Your task to perform on an android device: Go to sound settings Image 0: 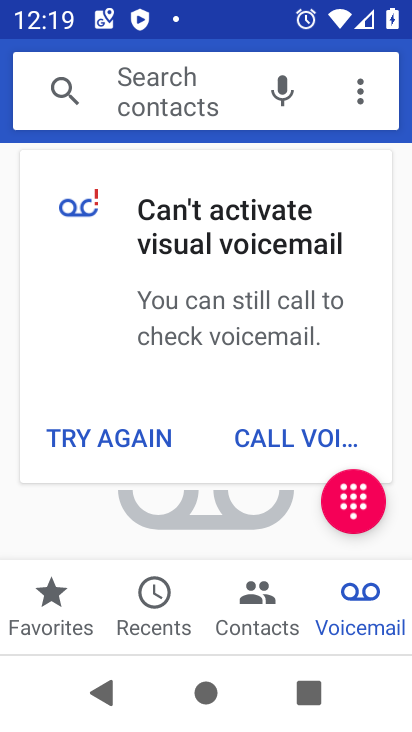
Step 0: press home button
Your task to perform on an android device: Go to sound settings Image 1: 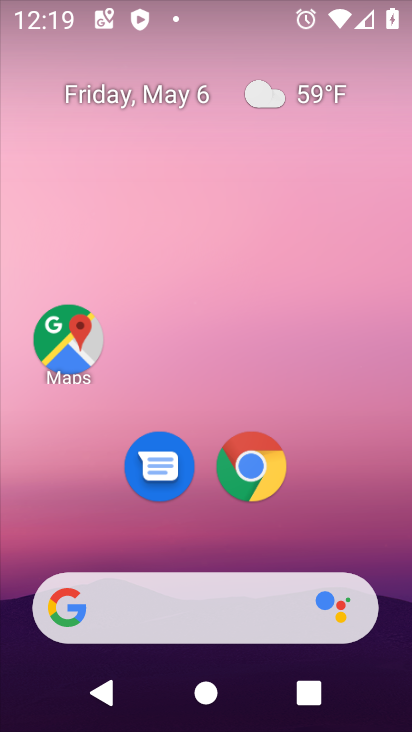
Step 1: click (226, 548)
Your task to perform on an android device: Go to sound settings Image 2: 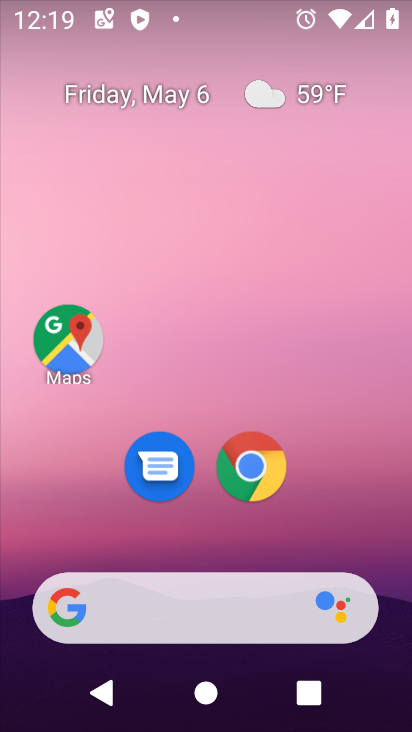
Step 2: drag from (226, 547) to (283, 246)
Your task to perform on an android device: Go to sound settings Image 3: 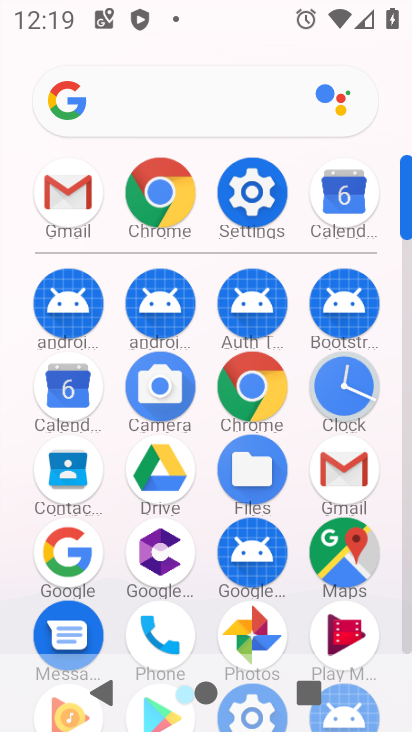
Step 3: click (256, 195)
Your task to perform on an android device: Go to sound settings Image 4: 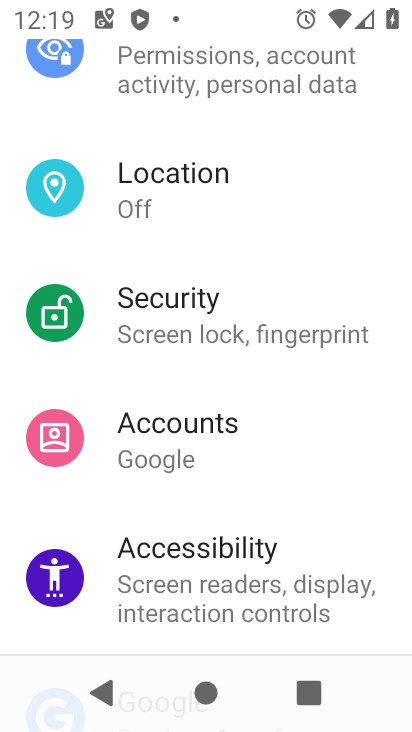
Step 4: drag from (167, 509) to (247, 164)
Your task to perform on an android device: Go to sound settings Image 5: 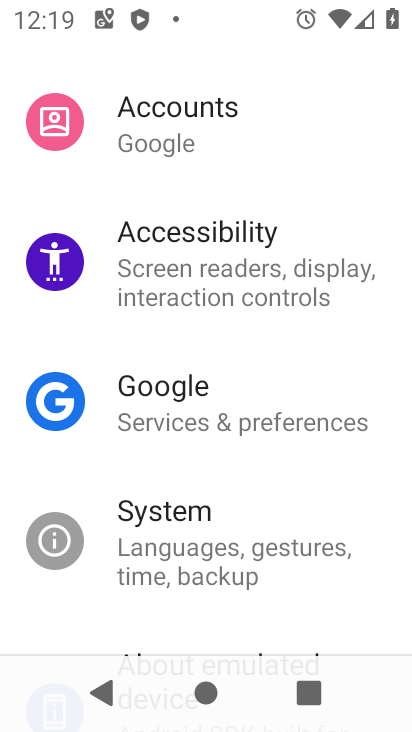
Step 5: drag from (223, 610) to (298, 307)
Your task to perform on an android device: Go to sound settings Image 6: 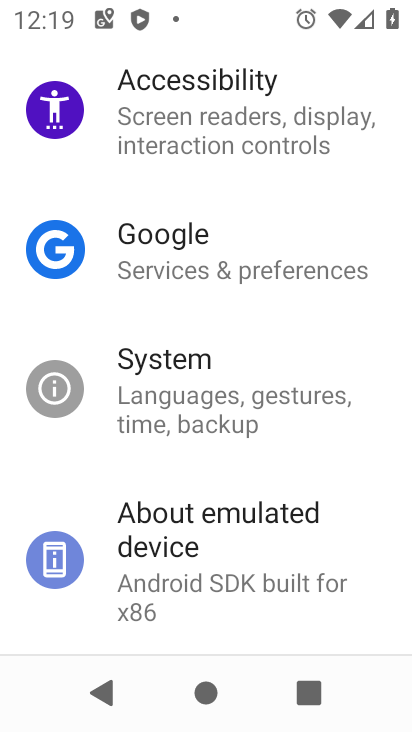
Step 6: drag from (205, 590) to (264, 314)
Your task to perform on an android device: Go to sound settings Image 7: 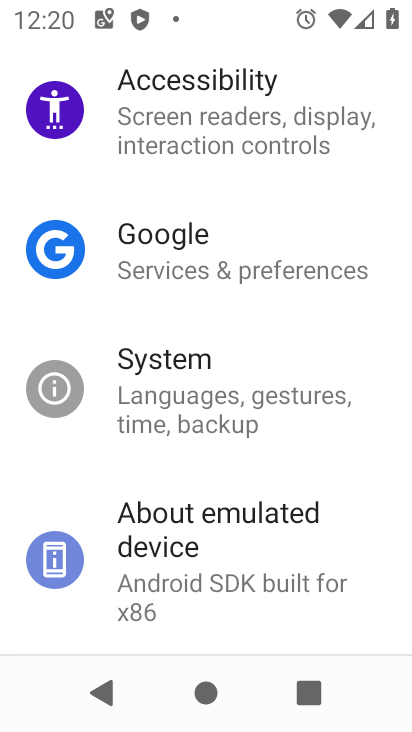
Step 7: drag from (322, 166) to (323, 606)
Your task to perform on an android device: Go to sound settings Image 8: 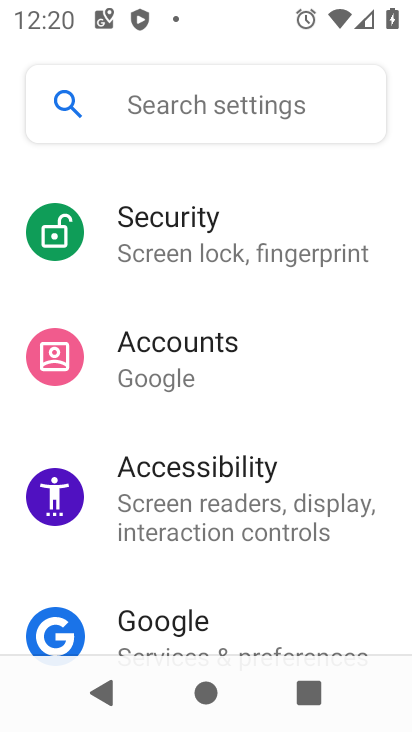
Step 8: drag from (296, 211) to (298, 607)
Your task to perform on an android device: Go to sound settings Image 9: 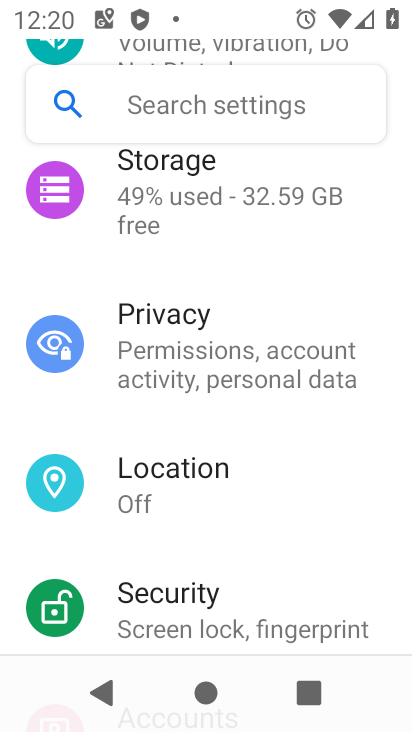
Step 9: drag from (277, 212) to (269, 420)
Your task to perform on an android device: Go to sound settings Image 10: 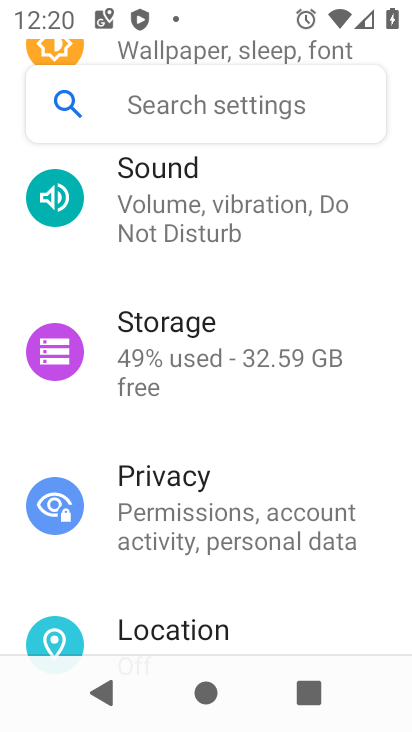
Step 10: drag from (231, 226) to (248, 401)
Your task to perform on an android device: Go to sound settings Image 11: 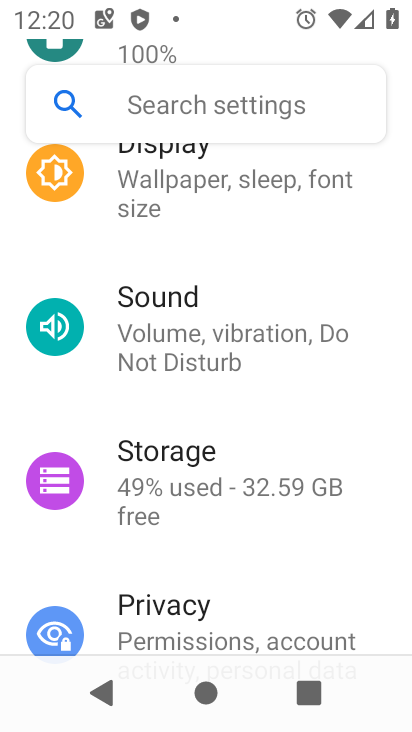
Step 11: click (209, 330)
Your task to perform on an android device: Go to sound settings Image 12: 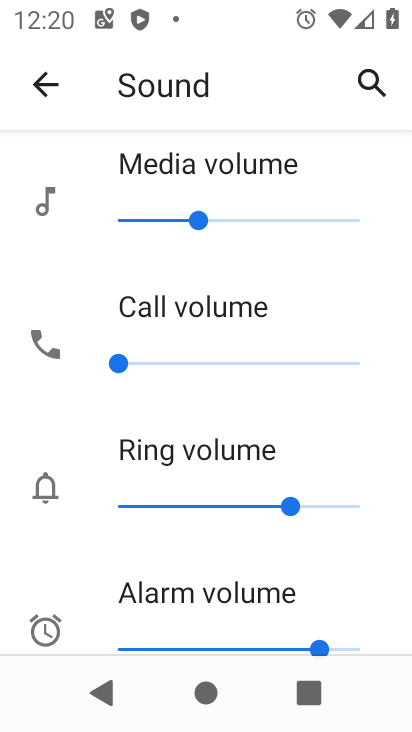
Step 12: task complete